Your task to perform on an android device: turn off priority inbox in the gmail app Image 0: 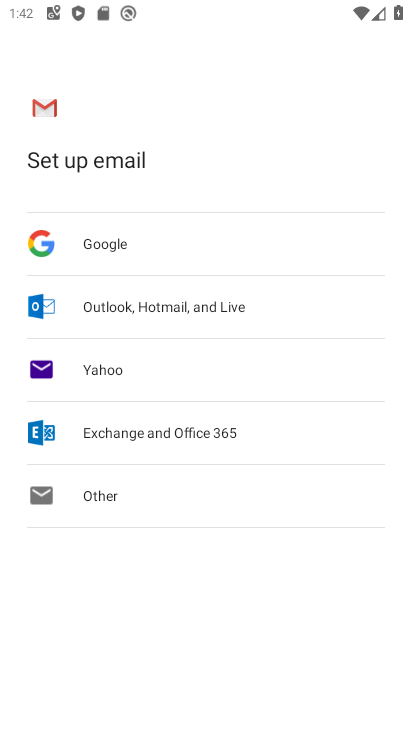
Step 0: press home button
Your task to perform on an android device: turn off priority inbox in the gmail app Image 1: 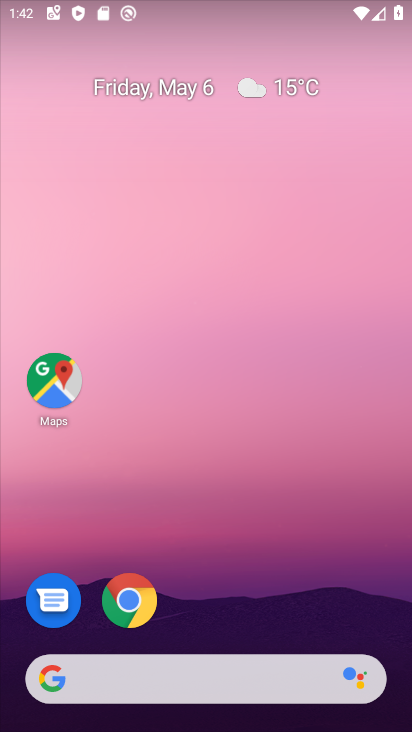
Step 1: drag from (351, 613) to (316, 83)
Your task to perform on an android device: turn off priority inbox in the gmail app Image 2: 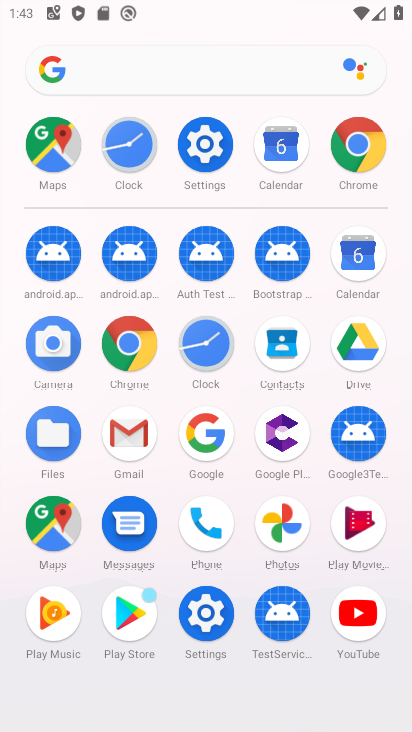
Step 2: click (122, 438)
Your task to perform on an android device: turn off priority inbox in the gmail app Image 3: 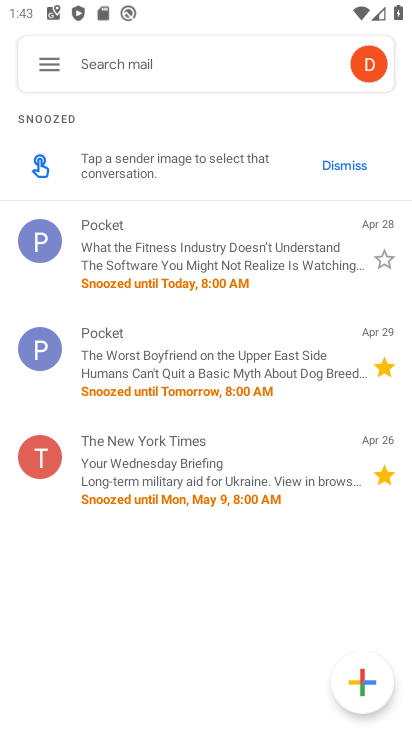
Step 3: click (40, 76)
Your task to perform on an android device: turn off priority inbox in the gmail app Image 4: 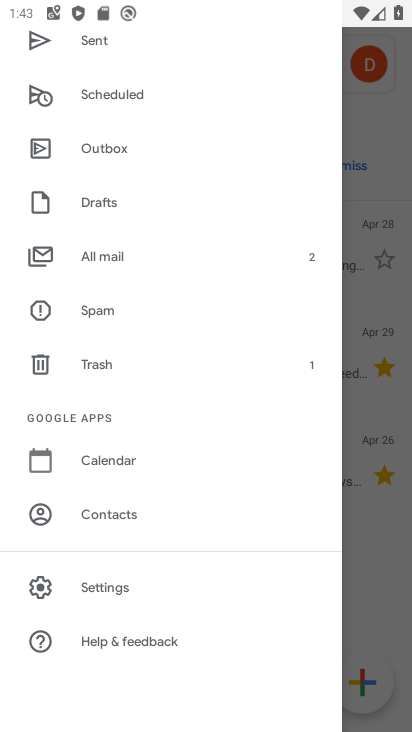
Step 4: click (141, 599)
Your task to perform on an android device: turn off priority inbox in the gmail app Image 5: 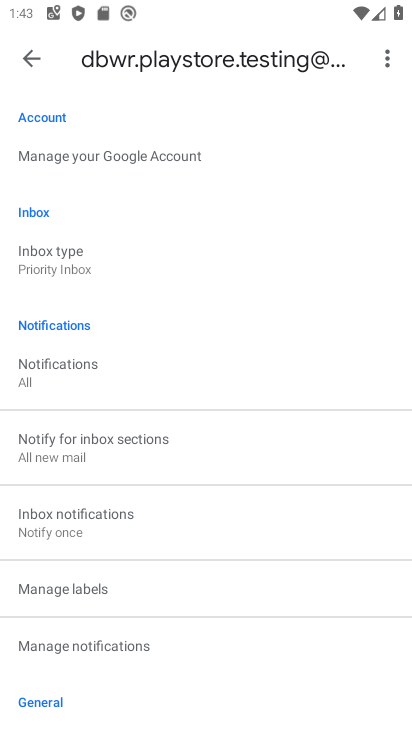
Step 5: click (144, 273)
Your task to perform on an android device: turn off priority inbox in the gmail app Image 6: 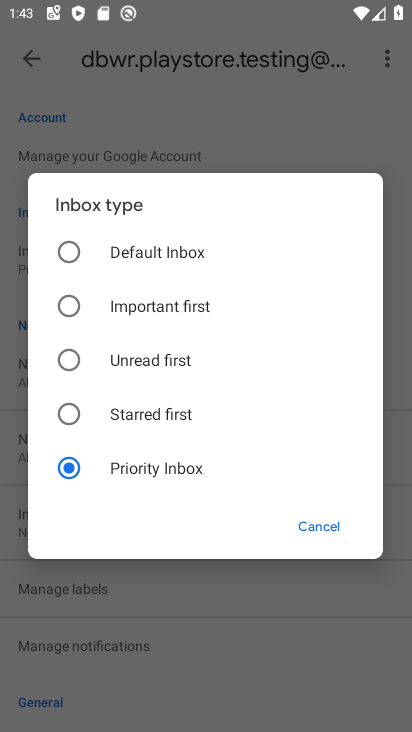
Step 6: click (132, 410)
Your task to perform on an android device: turn off priority inbox in the gmail app Image 7: 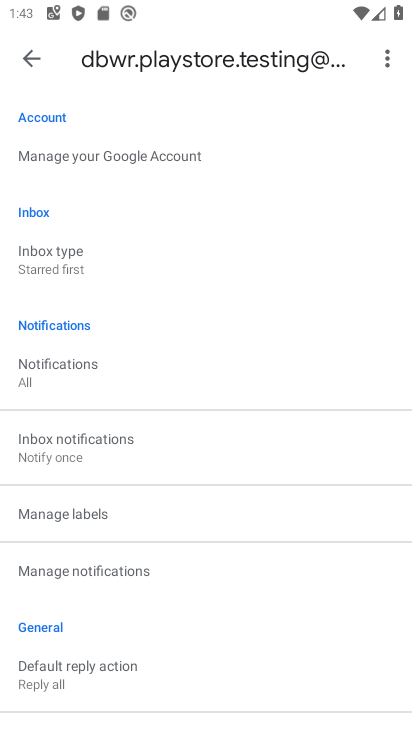
Step 7: task complete